Your task to perform on an android device: install app "Airtel Thanks" Image 0: 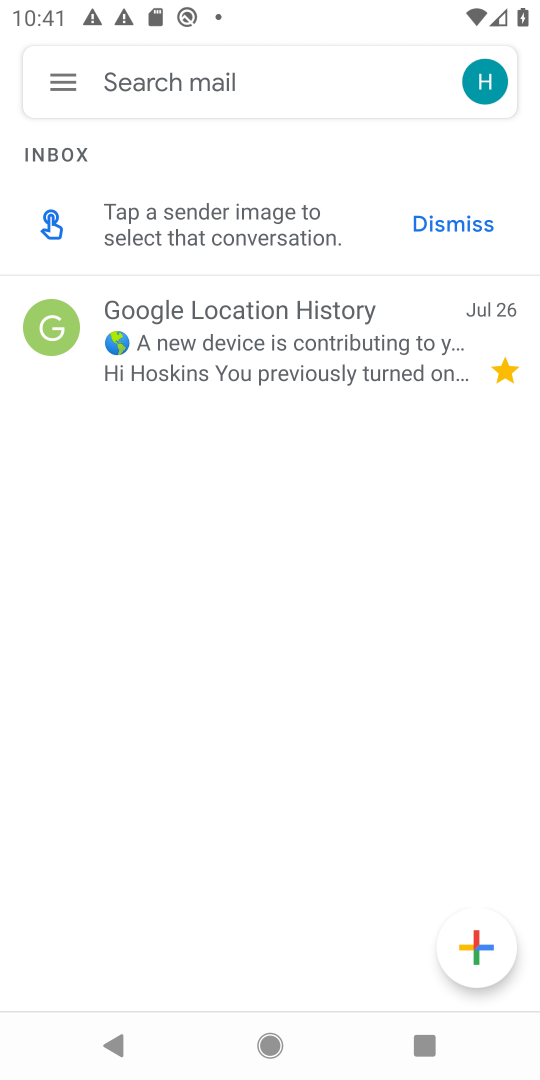
Step 0: drag from (287, 736) to (287, 352)
Your task to perform on an android device: install app "Airtel Thanks" Image 1: 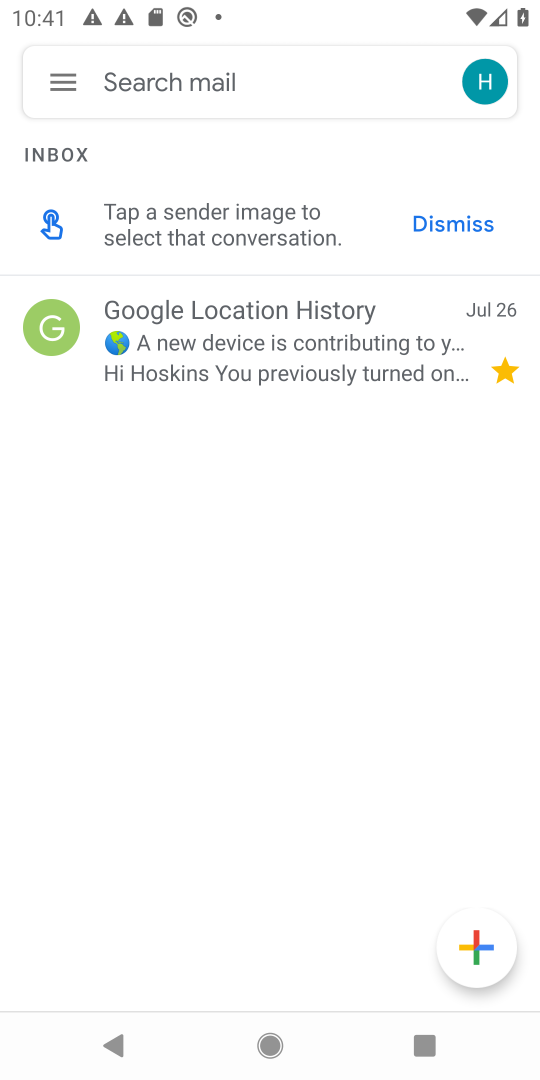
Step 1: press home button
Your task to perform on an android device: install app "Airtel Thanks" Image 2: 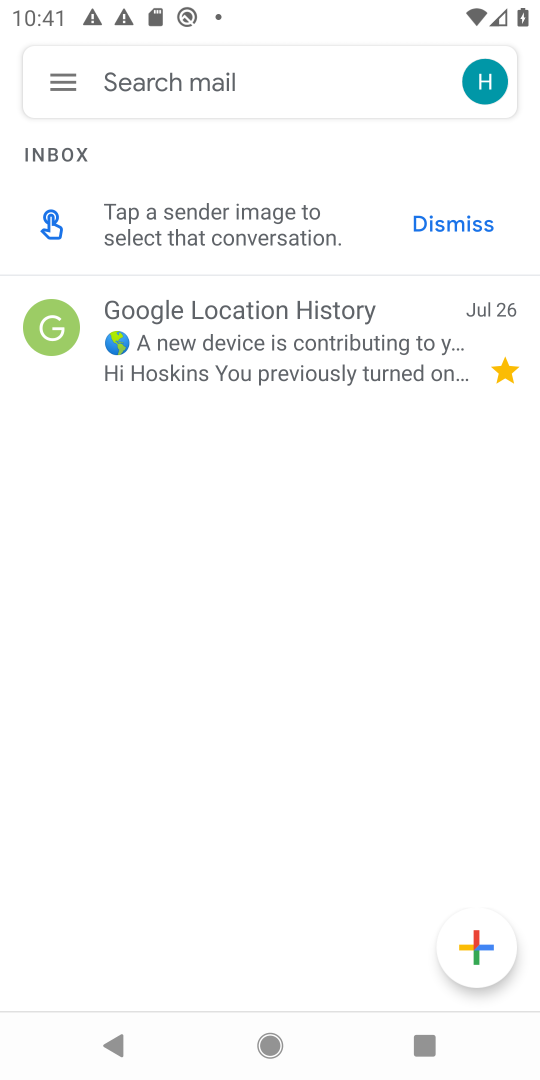
Step 2: drag from (143, 853) to (303, 205)
Your task to perform on an android device: install app "Airtel Thanks" Image 3: 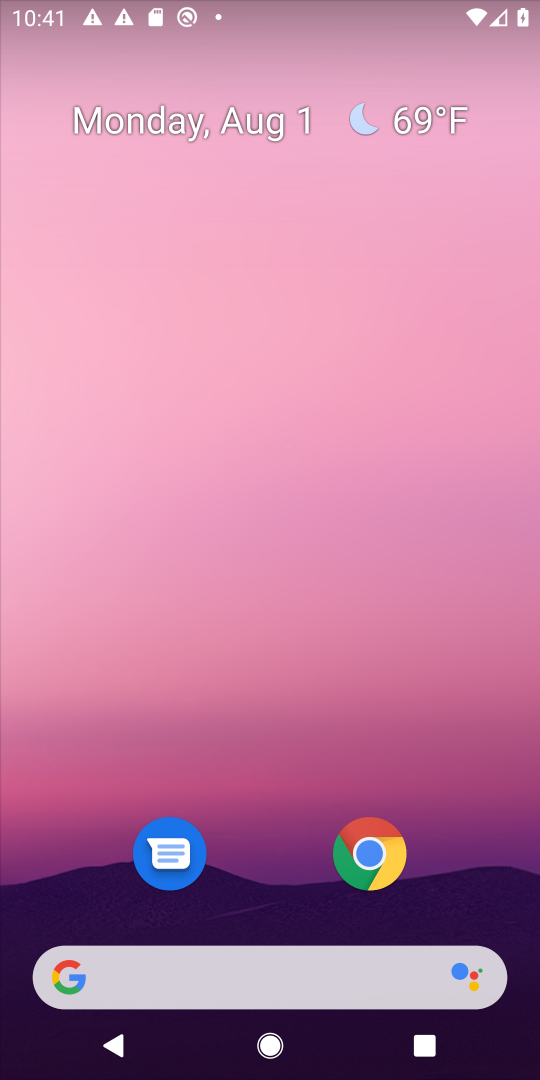
Step 3: drag from (223, 908) to (428, 212)
Your task to perform on an android device: install app "Airtel Thanks" Image 4: 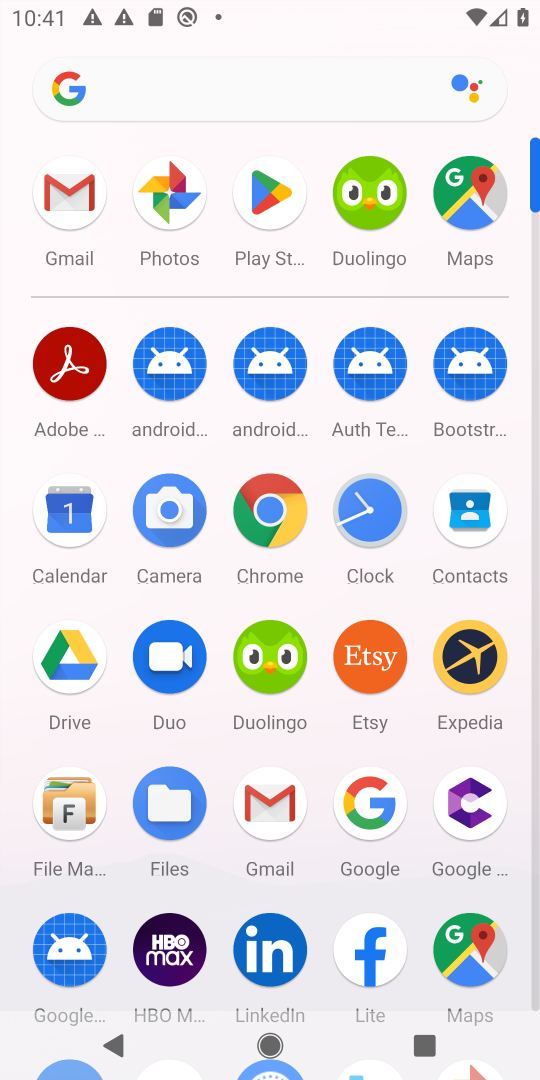
Step 4: click (267, 171)
Your task to perform on an android device: install app "Airtel Thanks" Image 5: 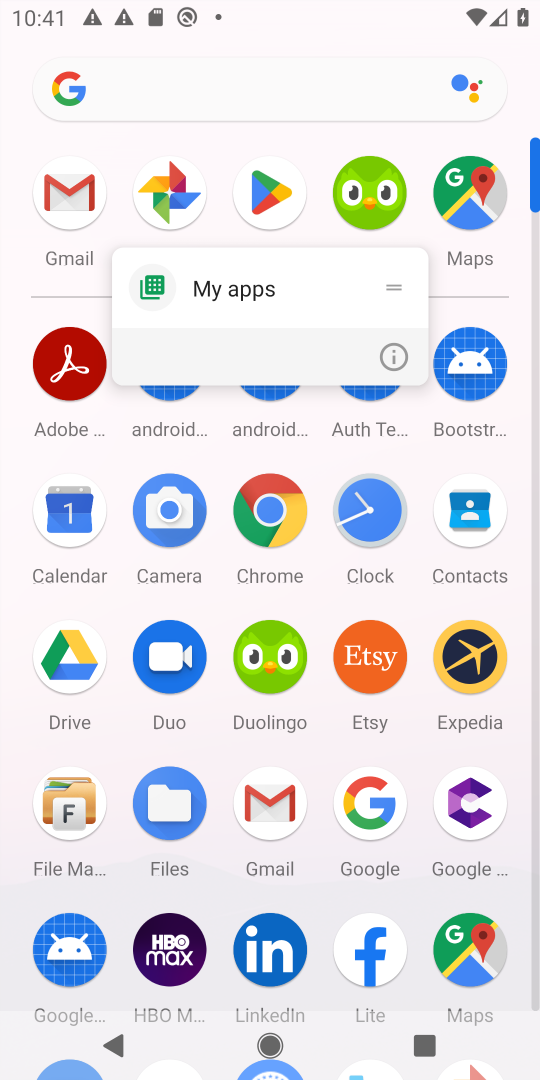
Step 5: click (389, 332)
Your task to perform on an android device: install app "Airtel Thanks" Image 6: 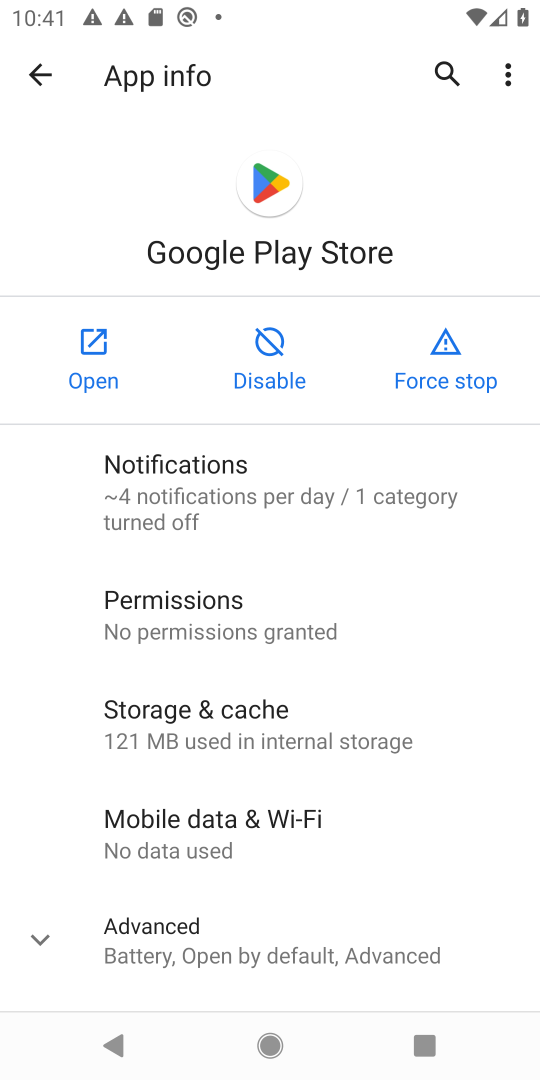
Step 6: click (95, 345)
Your task to perform on an android device: install app "Airtel Thanks" Image 7: 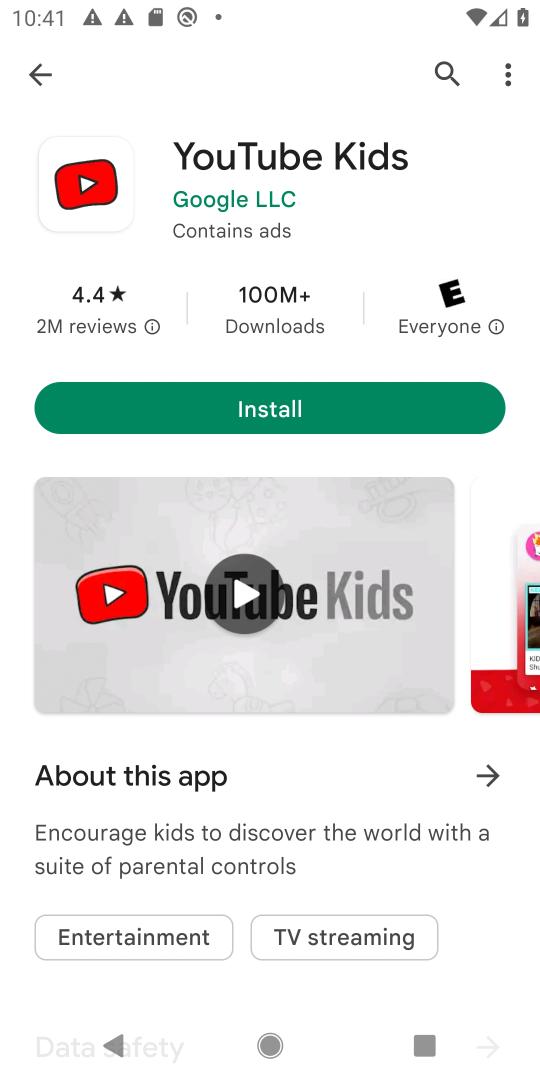
Step 7: click (457, 654)
Your task to perform on an android device: install app "Airtel Thanks" Image 8: 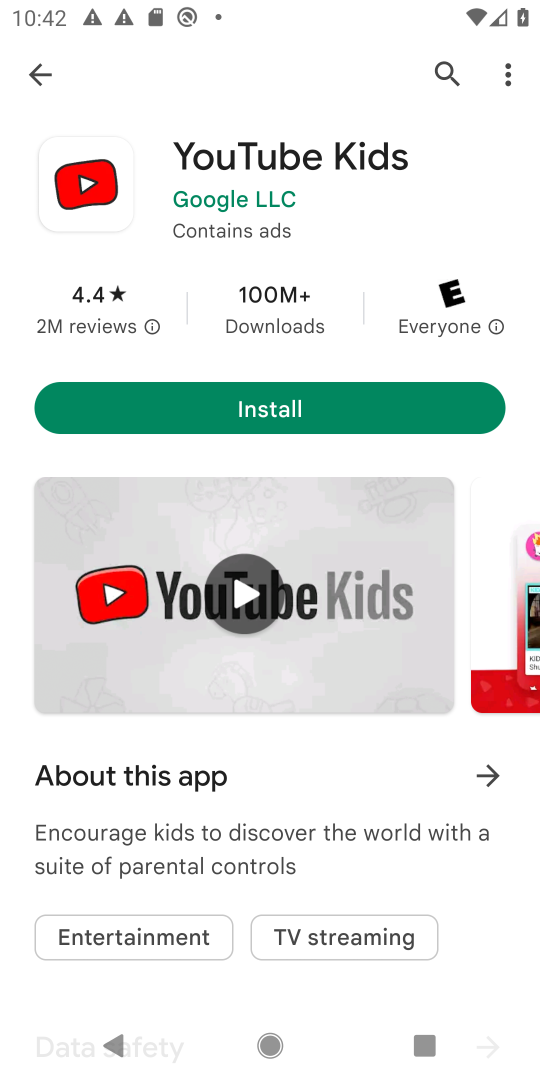
Step 8: click (438, 89)
Your task to perform on an android device: install app "Airtel Thanks" Image 9: 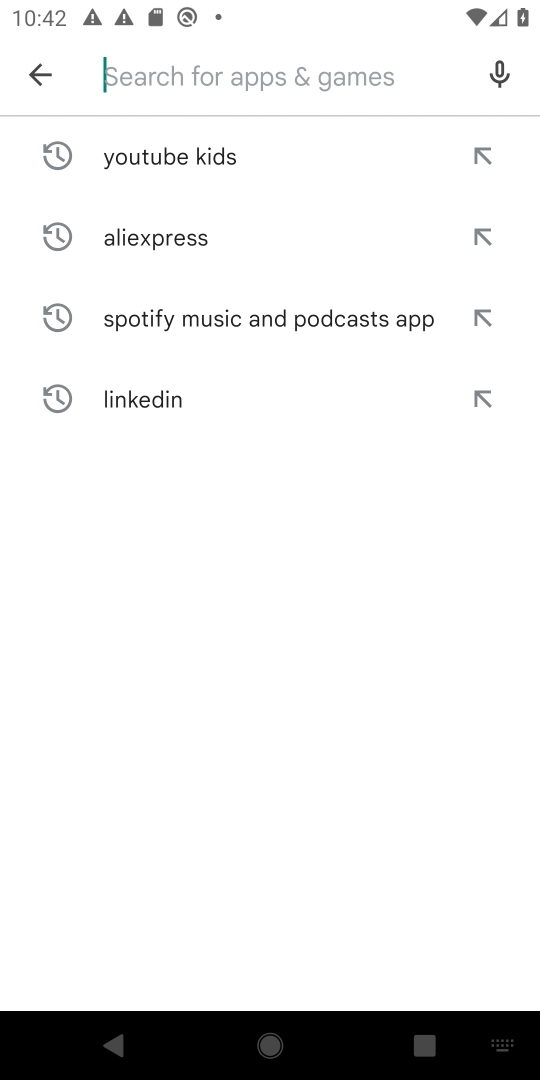
Step 9: type "Airtel Thanks"
Your task to perform on an android device: install app "Airtel Thanks" Image 10: 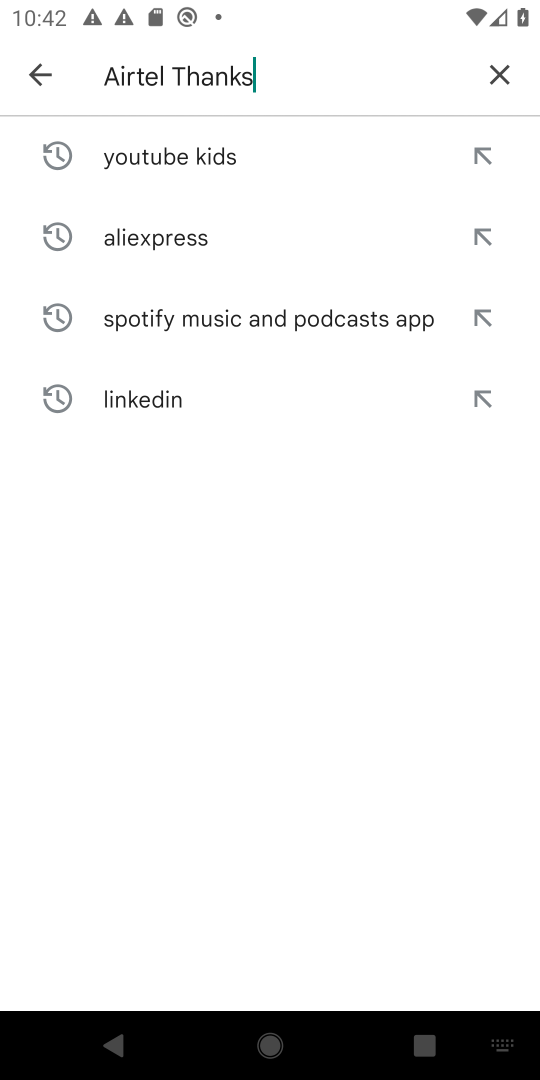
Step 10: type ""
Your task to perform on an android device: install app "Airtel Thanks" Image 11: 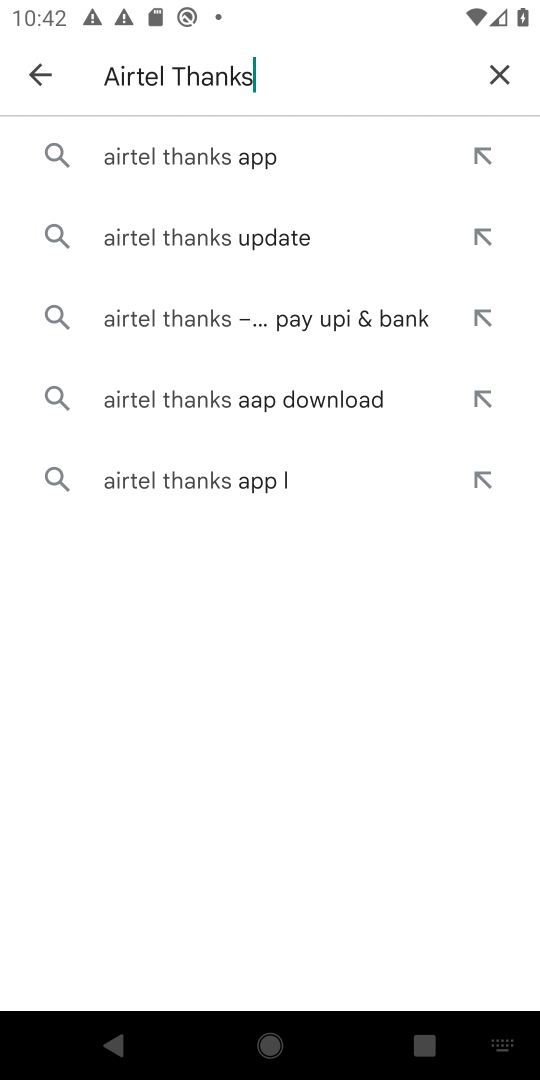
Step 11: click (169, 142)
Your task to perform on an android device: install app "Airtel Thanks" Image 12: 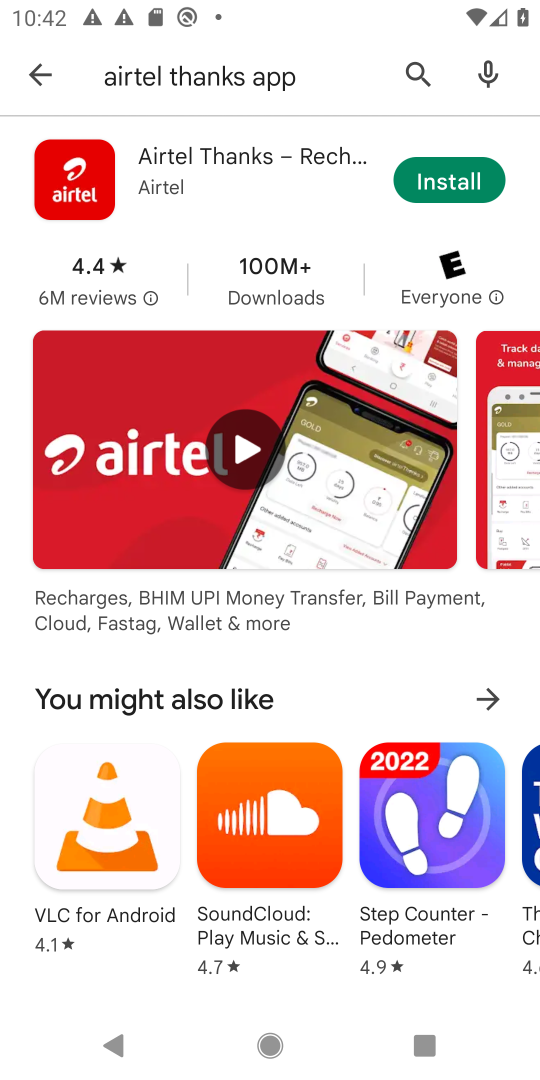
Step 12: click (154, 180)
Your task to perform on an android device: install app "Airtel Thanks" Image 13: 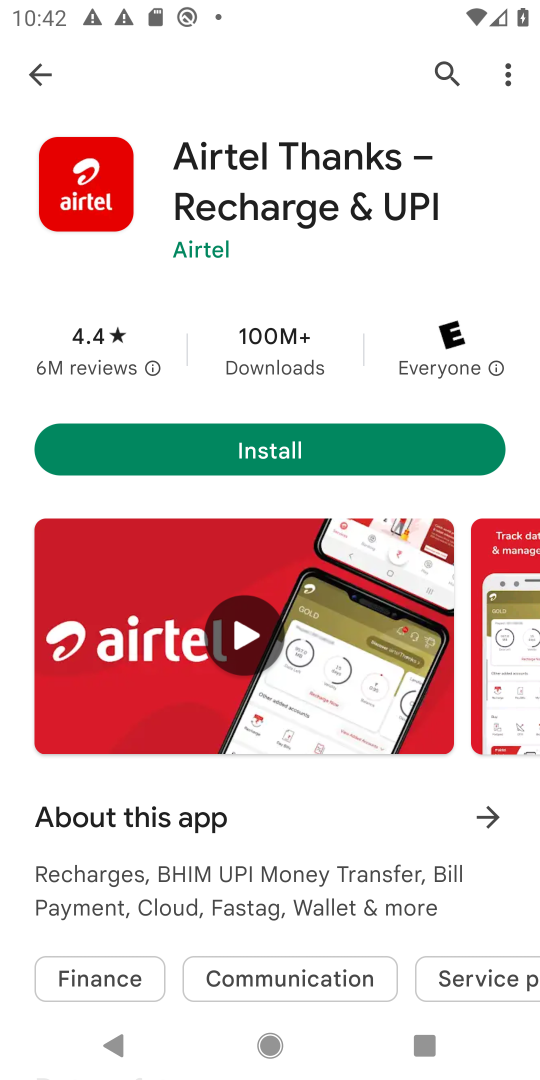
Step 13: click (205, 448)
Your task to perform on an android device: install app "Airtel Thanks" Image 14: 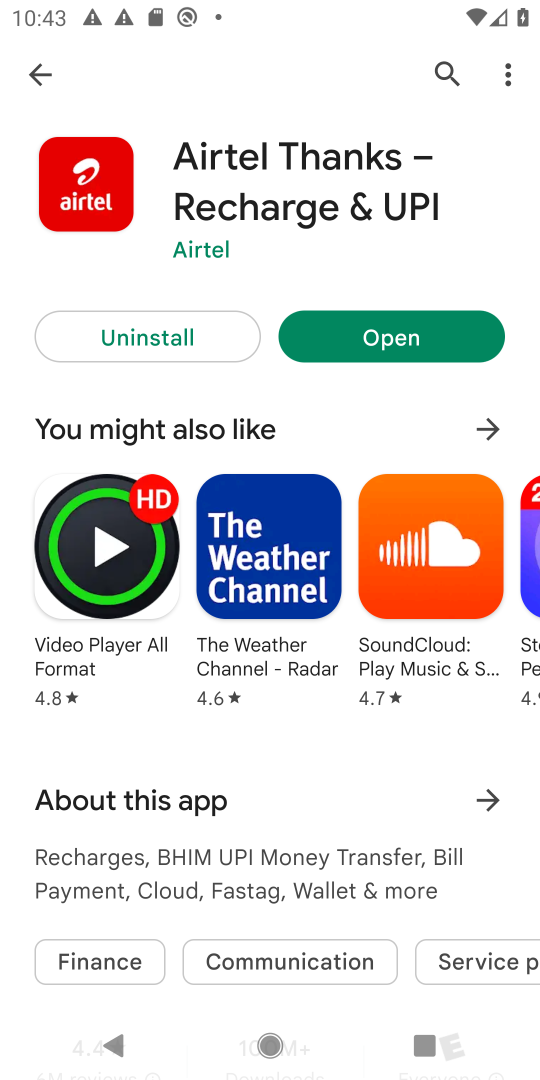
Step 14: click (411, 346)
Your task to perform on an android device: install app "Airtel Thanks" Image 15: 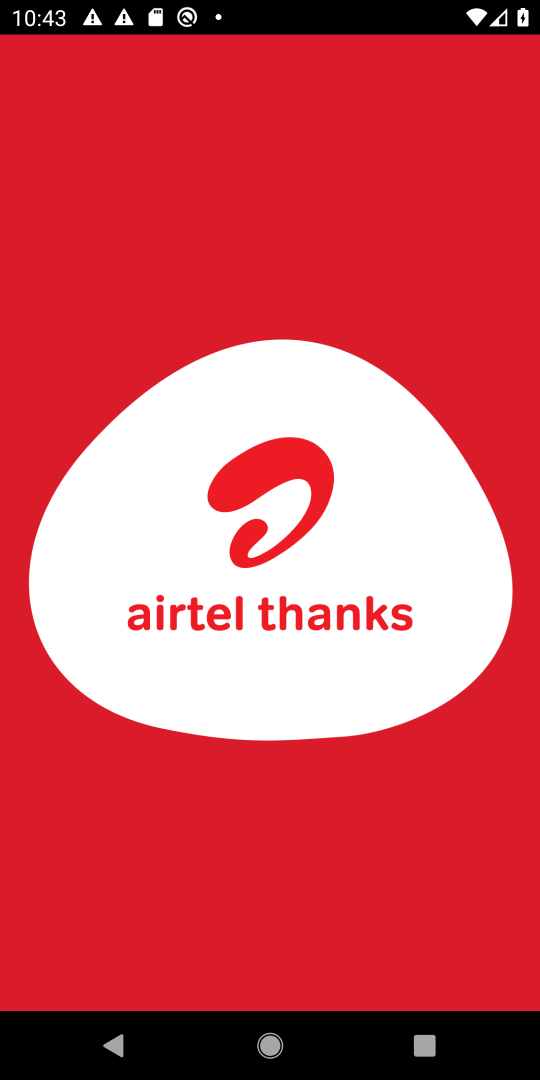
Step 15: task complete